Your task to perform on an android device: turn off wifi Image 0: 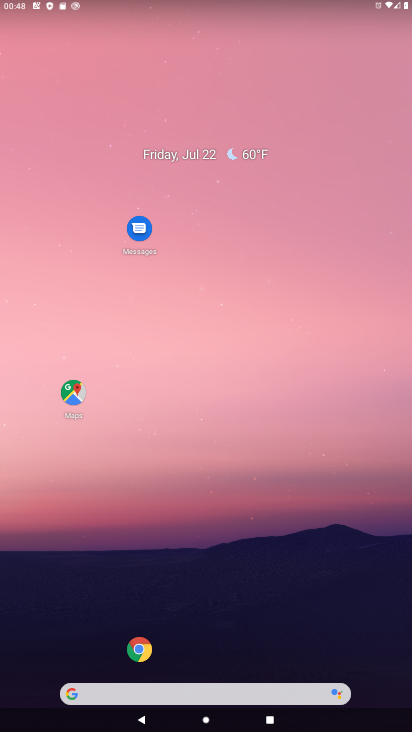
Step 0: drag from (118, 579) to (331, 184)
Your task to perform on an android device: turn off wifi Image 1: 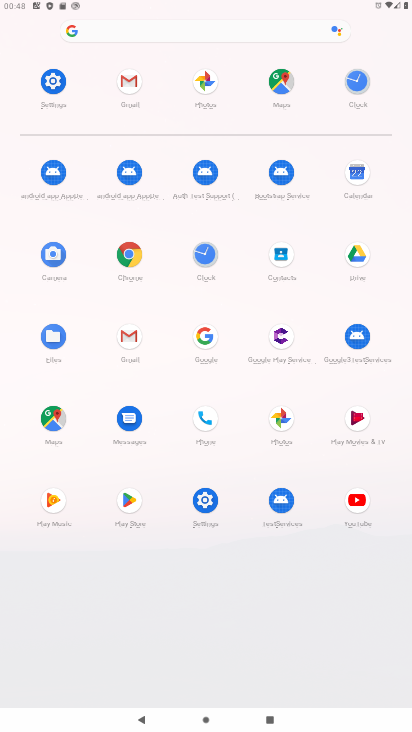
Step 1: click (210, 502)
Your task to perform on an android device: turn off wifi Image 2: 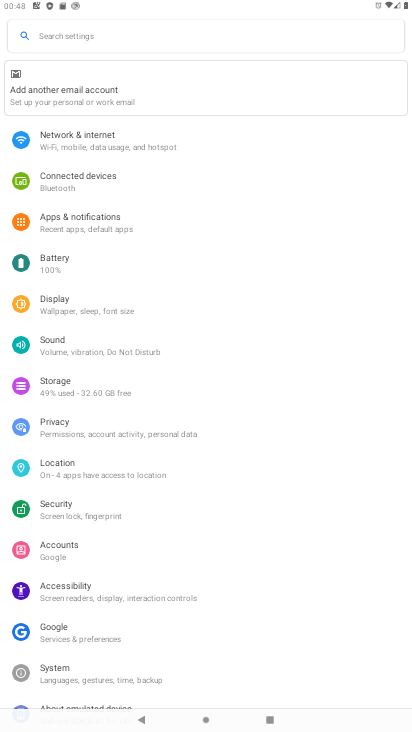
Step 2: click (68, 158)
Your task to perform on an android device: turn off wifi Image 3: 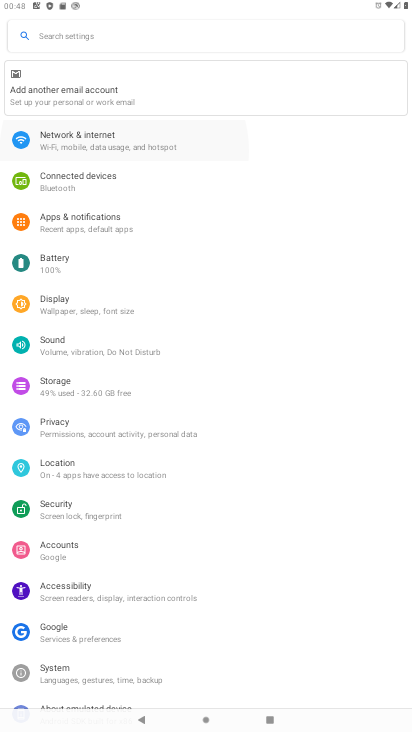
Step 3: click (75, 146)
Your task to perform on an android device: turn off wifi Image 4: 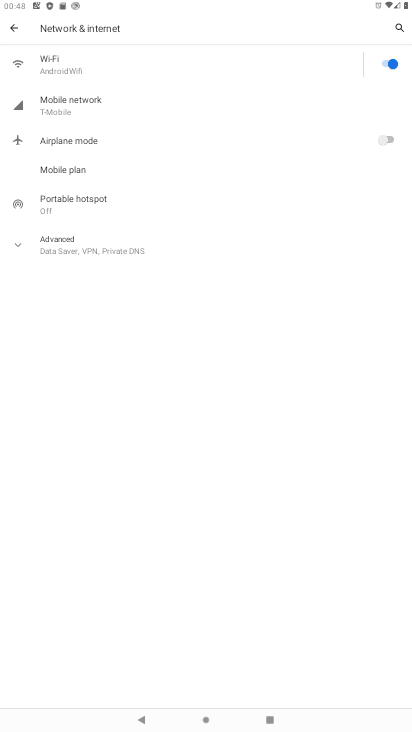
Step 4: click (383, 63)
Your task to perform on an android device: turn off wifi Image 5: 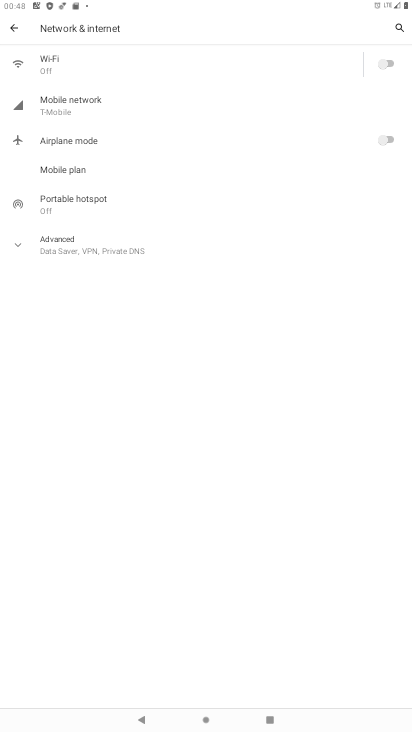
Step 5: task complete